Your task to perform on an android device: Open Youtube and go to the subscriptions tab Image 0: 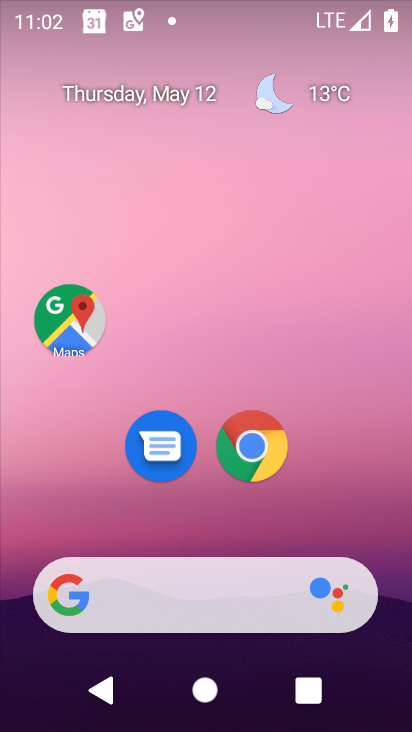
Step 0: drag from (290, 531) to (329, 88)
Your task to perform on an android device: Open Youtube and go to the subscriptions tab Image 1: 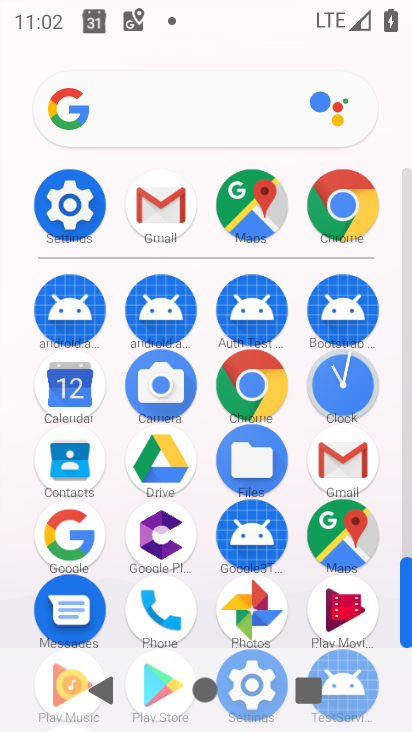
Step 1: drag from (298, 557) to (316, 233)
Your task to perform on an android device: Open Youtube and go to the subscriptions tab Image 2: 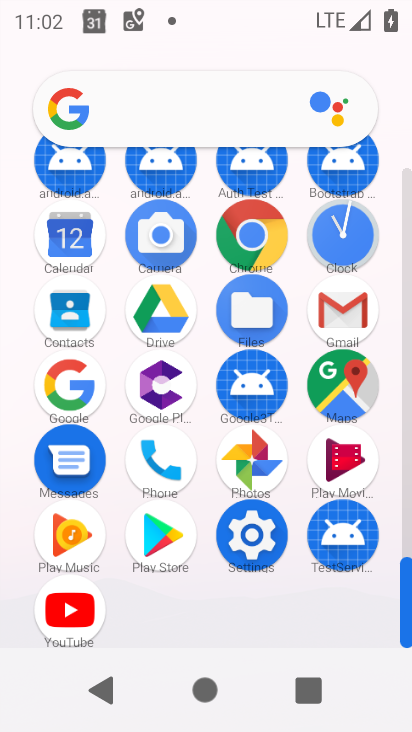
Step 2: click (86, 606)
Your task to perform on an android device: Open Youtube and go to the subscriptions tab Image 3: 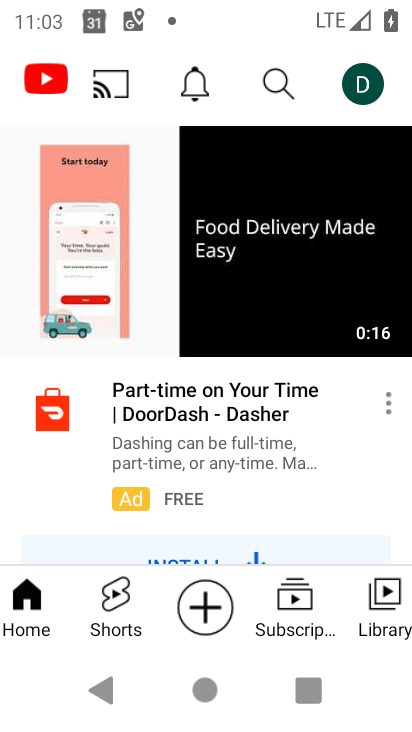
Step 3: click (300, 620)
Your task to perform on an android device: Open Youtube and go to the subscriptions tab Image 4: 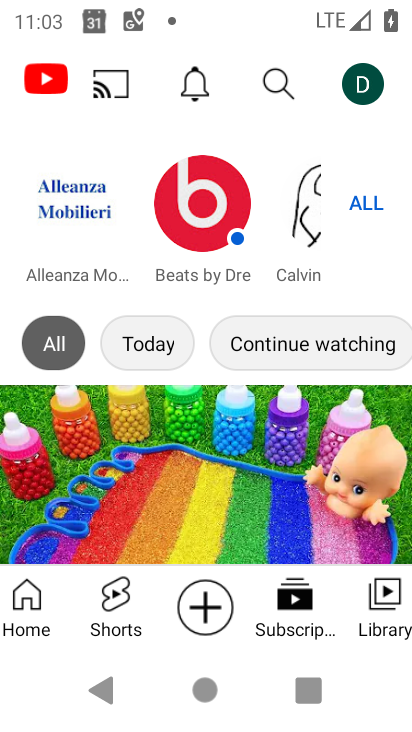
Step 4: task complete